Your task to perform on an android device: Play the last video I watched on Youtube Image 0: 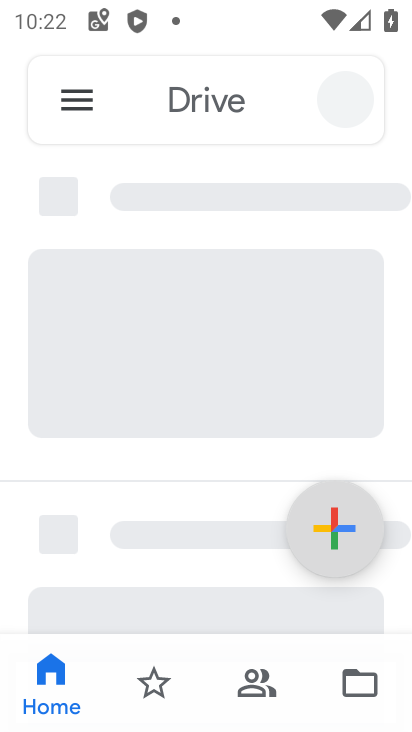
Step 0: drag from (373, 544) to (364, 387)
Your task to perform on an android device: Play the last video I watched on Youtube Image 1: 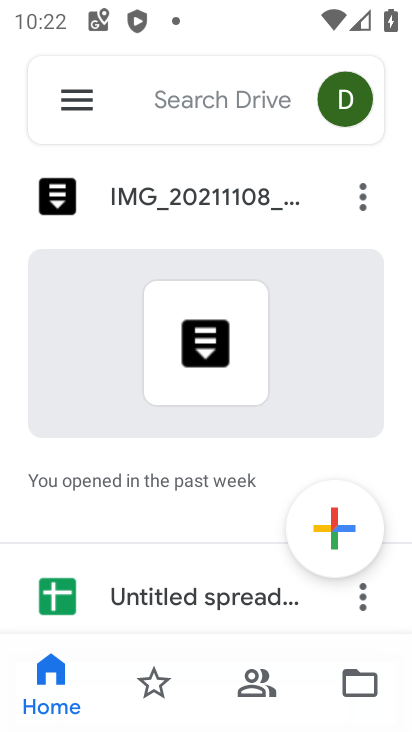
Step 1: press home button
Your task to perform on an android device: Play the last video I watched on Youtube Image 2: 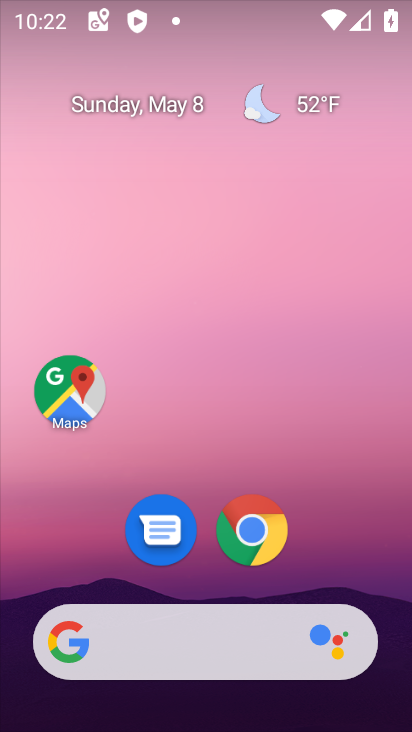
Step 2: drag from (369, 573) to (358, 87)
Your task to perform on an android device: Play the last video I watched on Youtube Image 3: 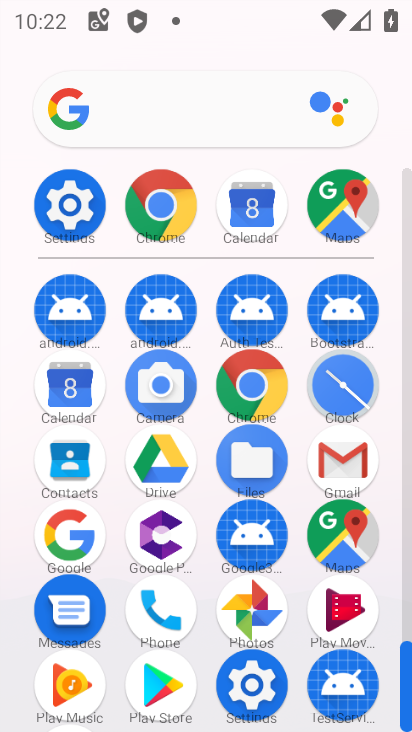
Step 3: drag from (297, 580) to (259, 233)
Your task to perform on an android device: Play the last video I watched on Youtube Image 4: 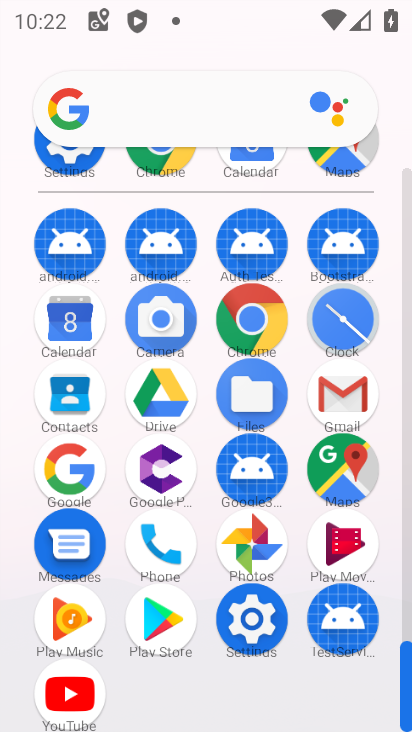
Step 4: click (74, 696)
Your task to perform on an android device: Play the last video I watched on Youtube Image 5: 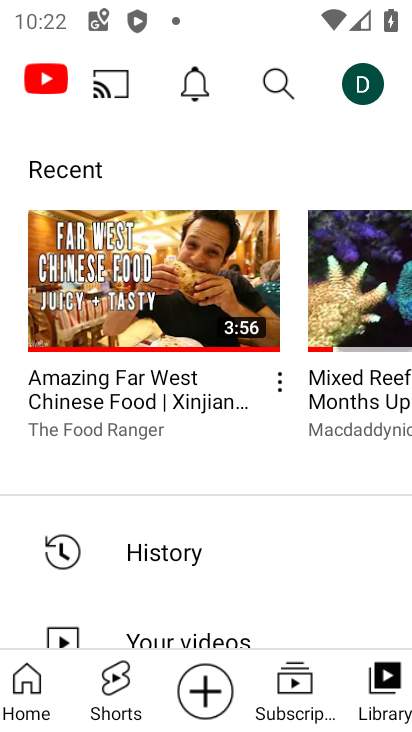
Step 5: task complete